Your task to perform on an android device: clear all cookies in the chrome app Image 0: 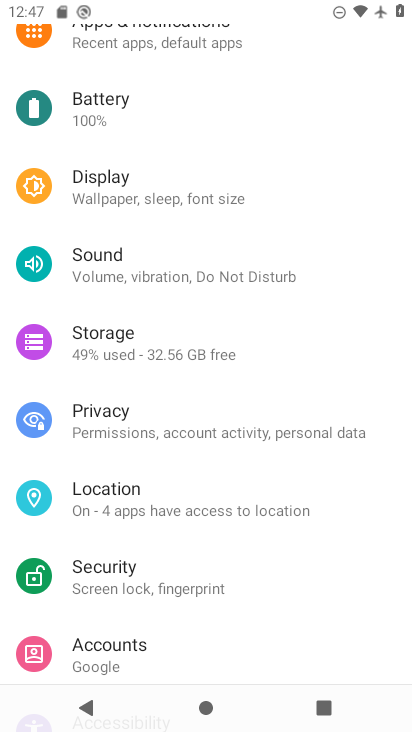
Step 0: press home button
Your task to perform on an android device: clear all cookies in the chrome app Image 1: 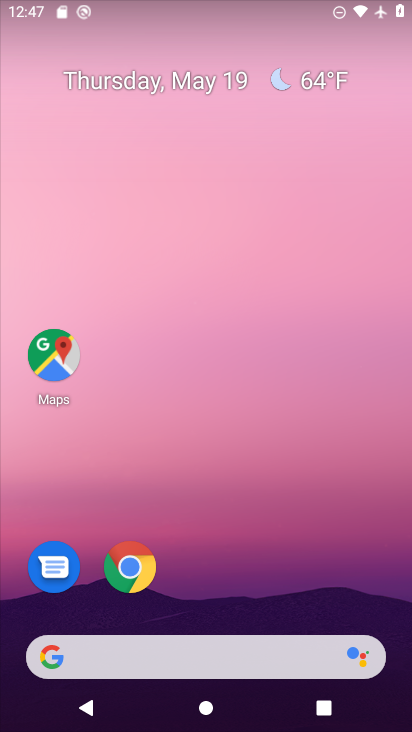
Step 1: click (148, 581)
Your task to perform on an android device: clear all cookies in the chrome app Image 2: 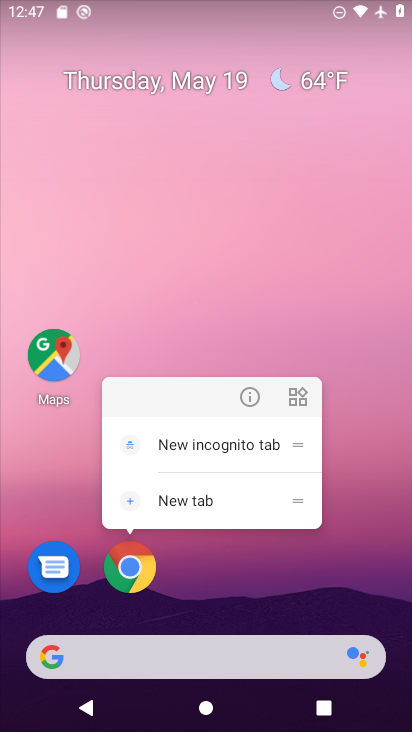
Step 2: click (136, 576)
Your task to perform on an android device: clear all cookies in the chrome app Image 3: 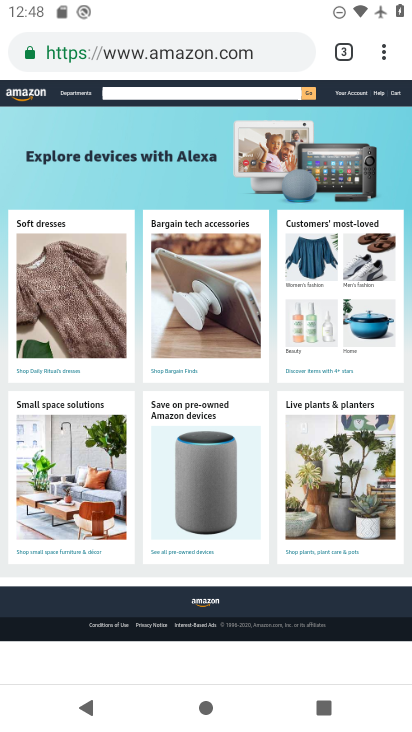
Step 3: drag from (388, 56) to (223, 286)
Your task to perform on an android device: clear all cookies in the chrome app Image 4: 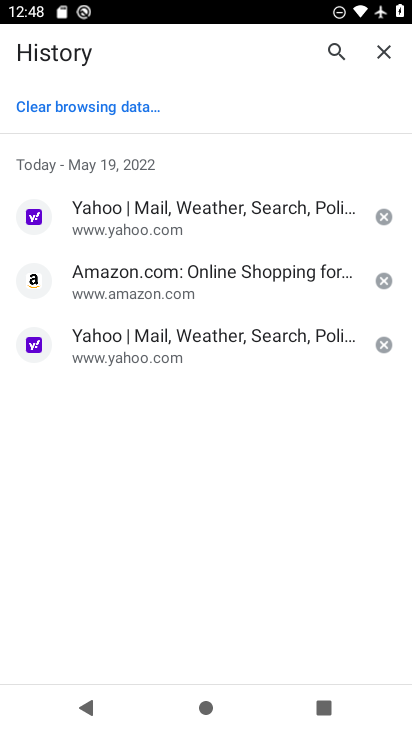
Step 4: click (34, 106)
Your task to perform on an android device: clear all cookies in the chrome app Image 5: 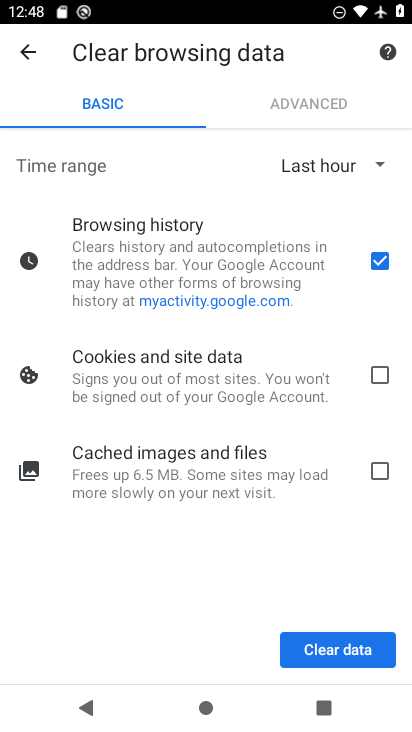
Step 5: click (376, 259)
Your task to perform on an android device: clear all cookies in the chrome app Image 6: 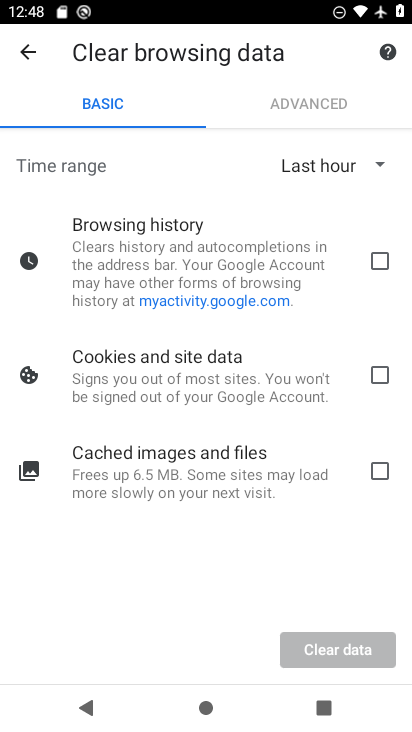
Step 6: click (377, 381)
Your task to perform on an android device: clear all cookies in the chrome app Image 7: 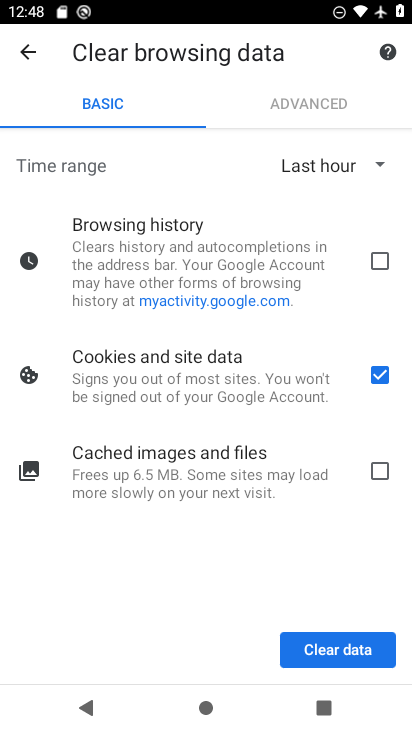
Step 7: click (342, 650)
Your task to perform on an android device: clear all cookies in the chrome app Image 8: 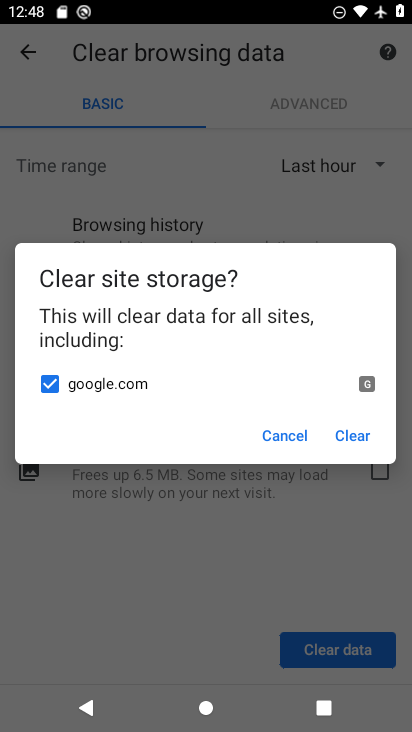
Step 8: drag from (373, 468) to (349, 428)
Your task to perform on an android device: clear all cookies in the chrome app Image 9: 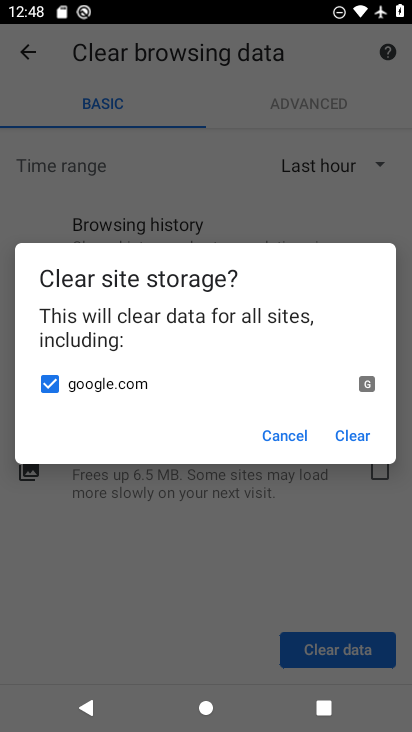
Step 9: click (349, 438)
Your task to perform on an android device: clear all cookies in the chrome app Image 10: 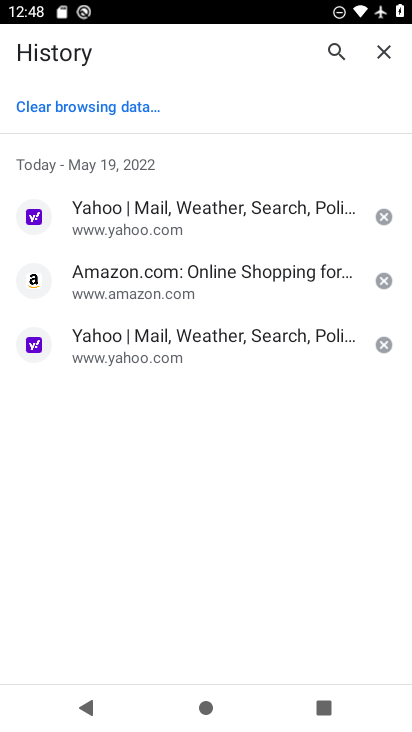
Step 10: task complete